Your task to perform on an android device: Show me the alarms in the clock app Image 0: 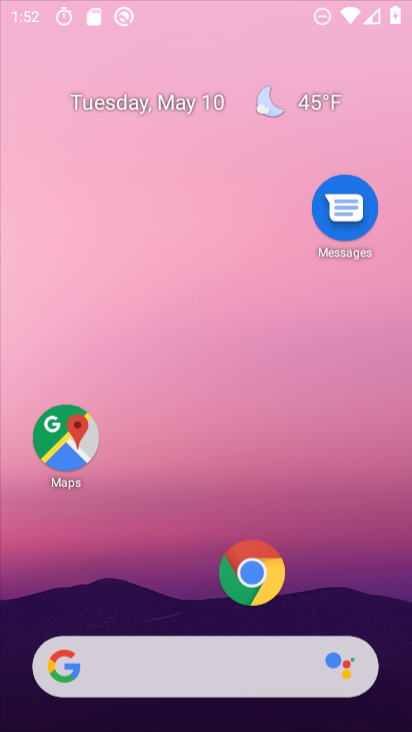
Step 0: drag from (219, 490) to (239, 191)
Your task to perform on an android device: Show me the alarms in the clock app Image 1: 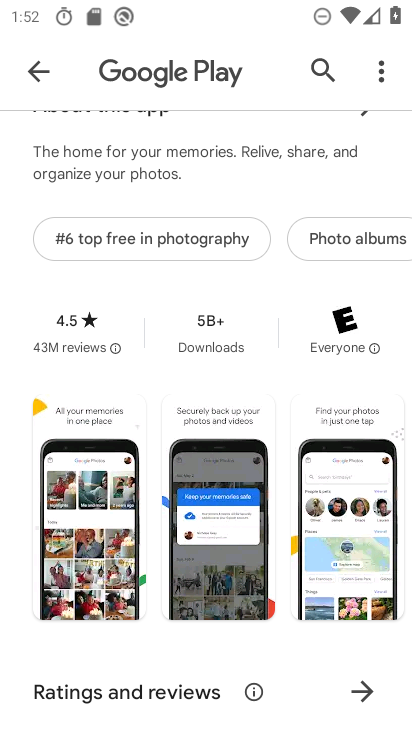
Step 1: press home button
Your task to perform on an android device: Show me the alarms in the clock app Image 2: 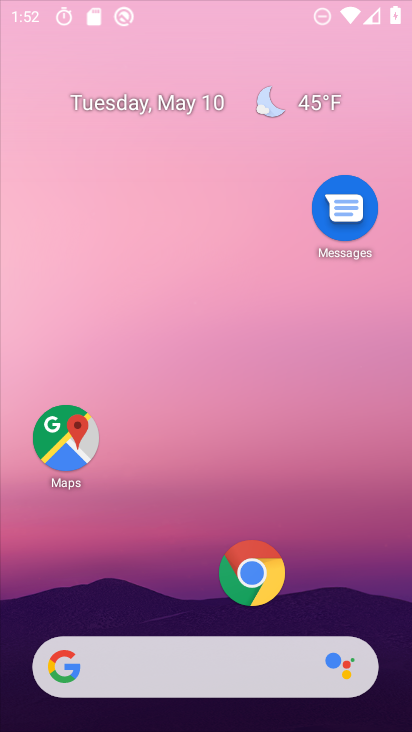
Step 2: drag from (206, 631) to (256, 102)
Your task to perform on an android device: Show me the alarms in the clock app Image 3: 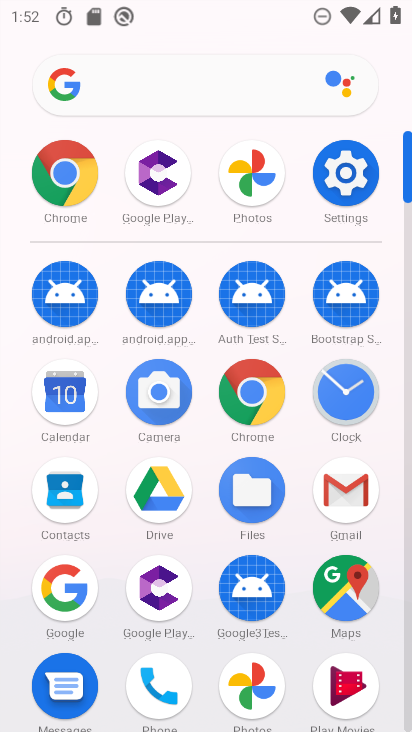
Step 3: click (336, 389)
Your task to perform on an android device: Show me the alarms in the clock app Image 4: 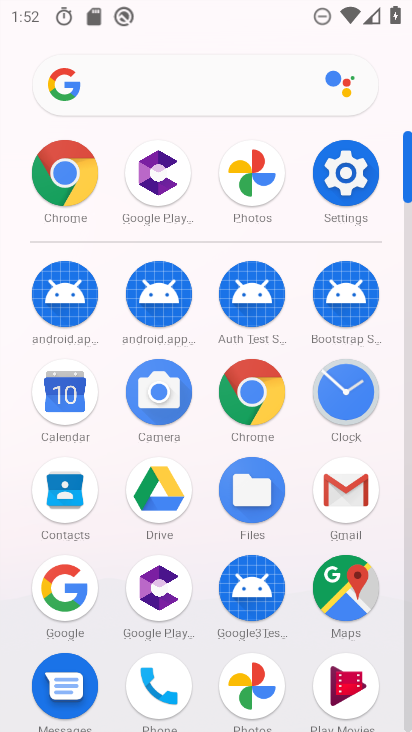
Step 4: click (336, 389)
Your task to perform on an android device: Show me the alarms in the clock app Image 5: 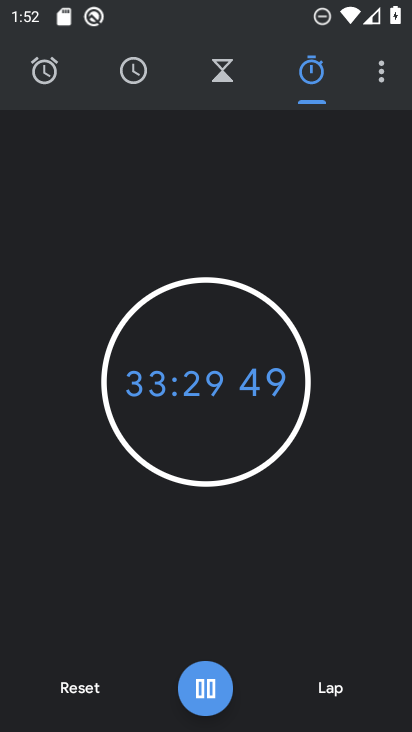
Step 5: click (85, 685)
Your task to perform on an android device: Show me the alarms in the clock app Image 6: 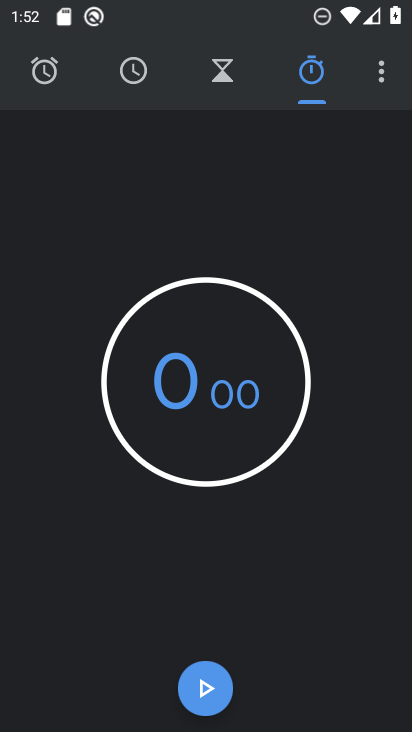
Step 6: click (249, 66)
Your task to perform on an android device: Show me the alarms in the clock app Image 7: 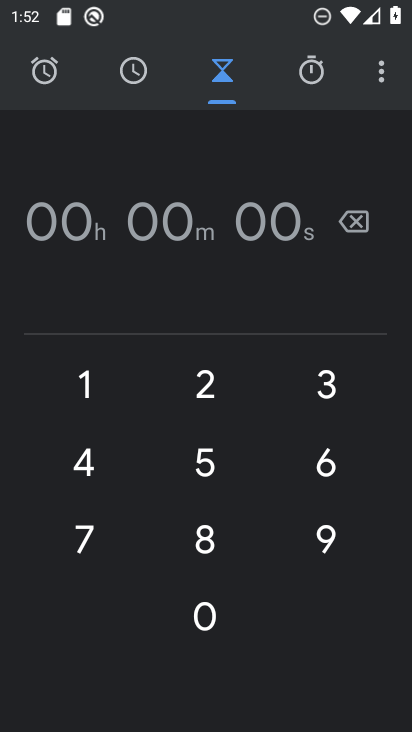
Step 7: click (322, 80)
Your task to perform on an android device: Show me the alarms in the clock app Image 8: 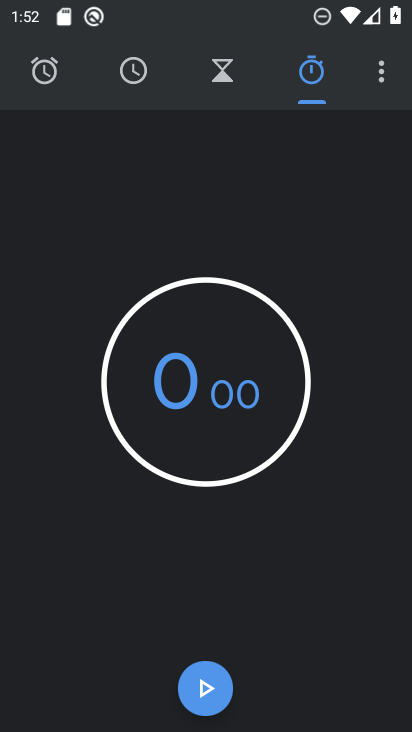
Step 8: click (64, 72)
Your task to perform on an android device: Show me the alarms in the clock app Image 9: 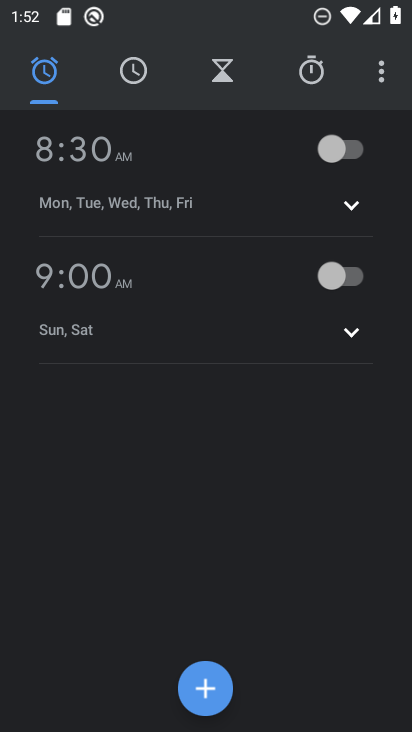
Step 9: task complete